Your task to perform on an android device: Do I have any events tomorrow? Image 0: 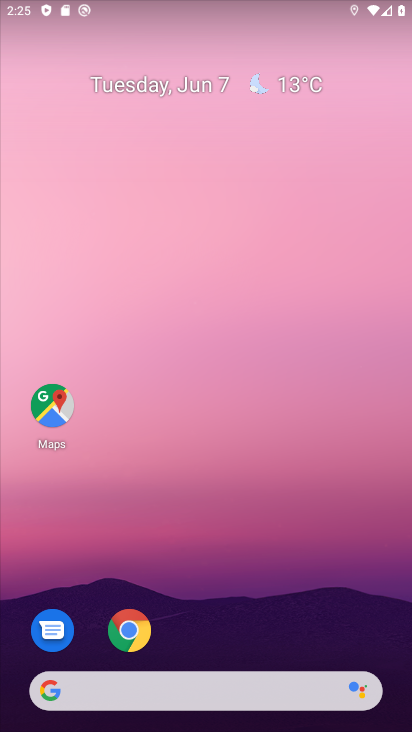
Step 0: drag from (199, 681) to (242, 133)
Your task to perform on an android device: Do I have any events tomorrow? Image 1: 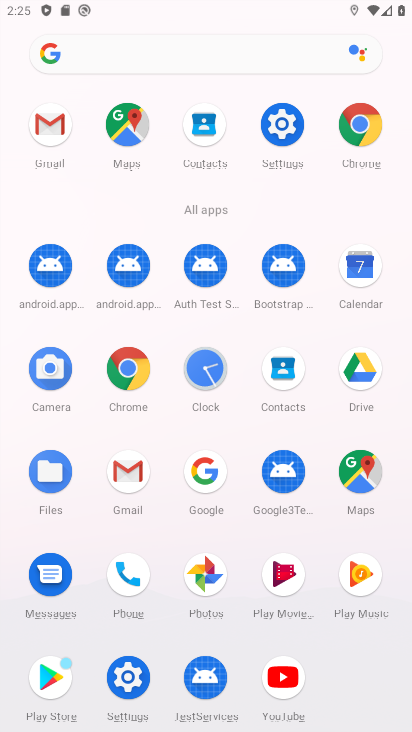
Step 1: click (361, 270)
Your task to perform on an android device: Do I have any events tomorrow? Image 2: 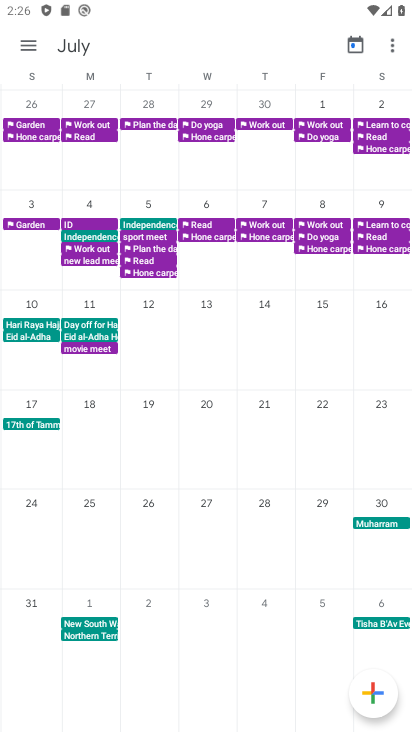
Step 2: drag from (77, 481) to (310, 440)
Your task to perform on an android device: Do I have any events tomorrow? Image 3: 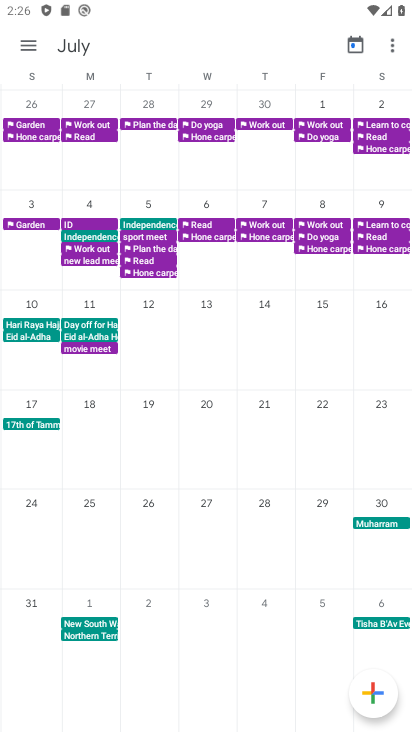
Step 3: drag from (23, 487) to (407, 477)
Your task to perform on an android device: Do I have any events tomorrow? Image 4: 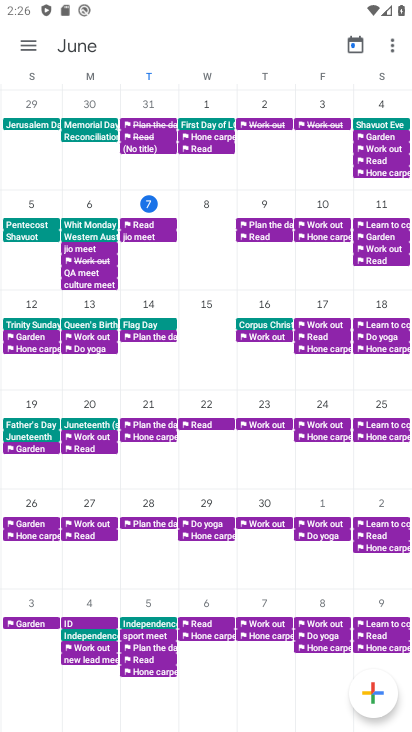
Step 4: click (29, 49)
Your task to perform on an android device: Do I have any events tomorrow? Image 5: 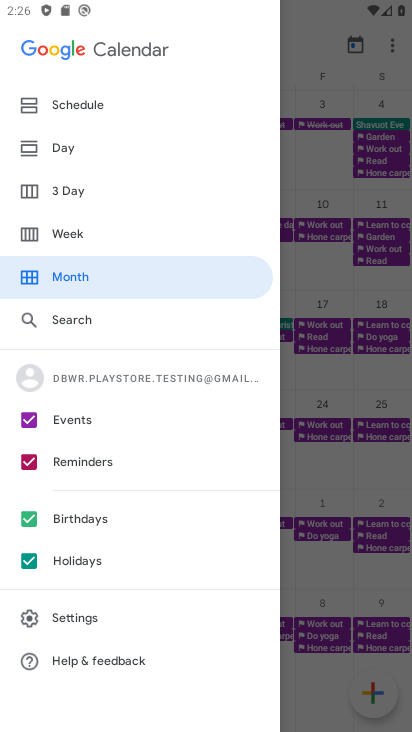
Step 5: click (77, 110)
Your task to perform on an android device: Do I have any events tomorrow? Image 6: 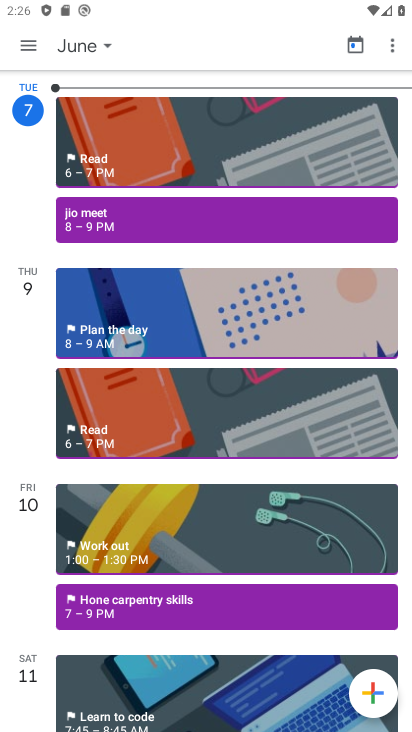
Step 6: task complete